Your task to perform on an android device: change the clock style Image 0: 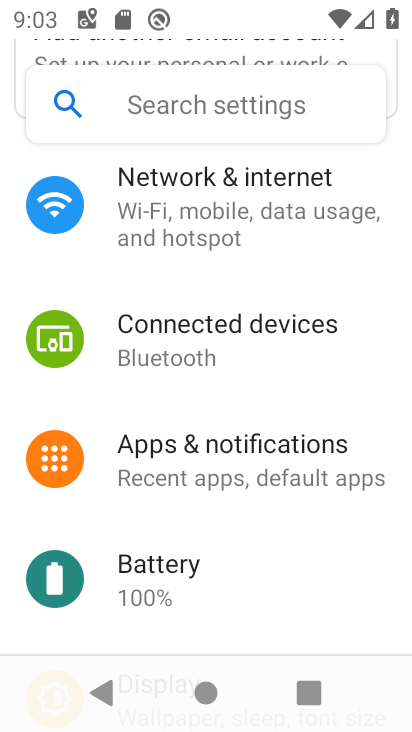
Step 0: press home button
Your task to perform on an android device: change the clock style Image 1: 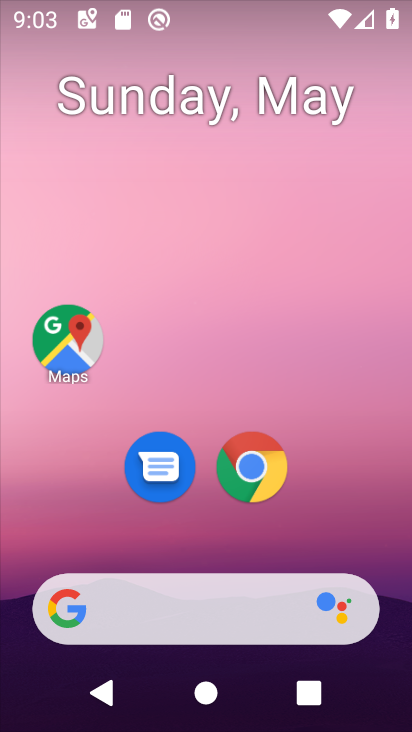
Step 1: drag from (366, 533) to (324, 172)
Your task to perform on an android device: change the clock style Image 2: 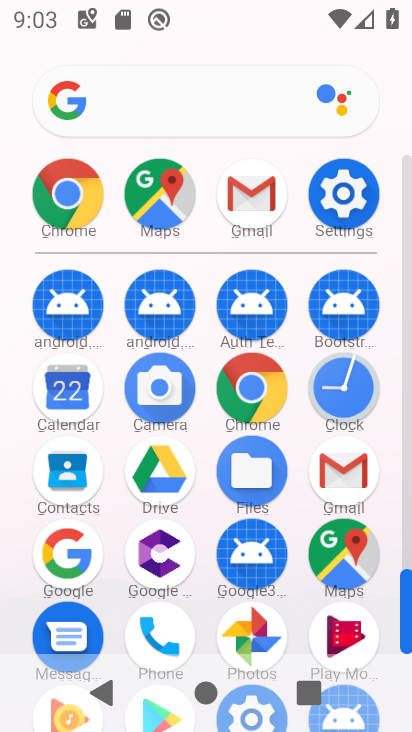
Step 2: click (336, 414)
Your task to perform on an android device: change the clock style Image 3: 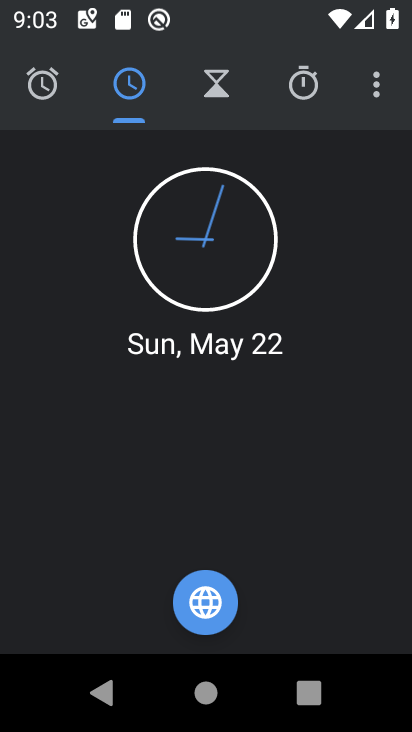
Step 3: click (391, 87)
Your task to perform on an android device: change the clock style Image 4: 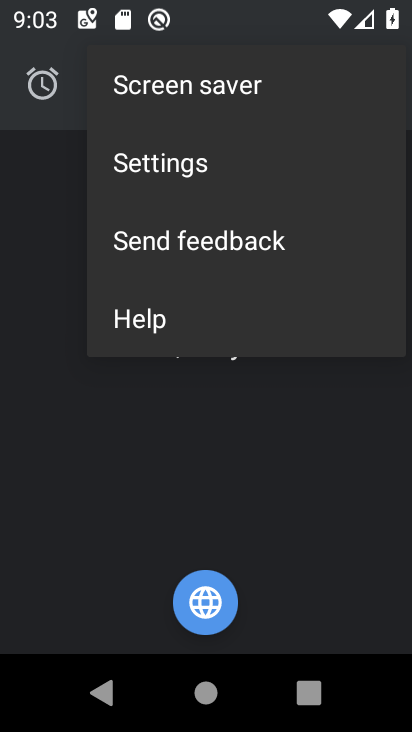
Step 4: click (205, 170)
Your task to perform on an android device: change the clock style Image 5: 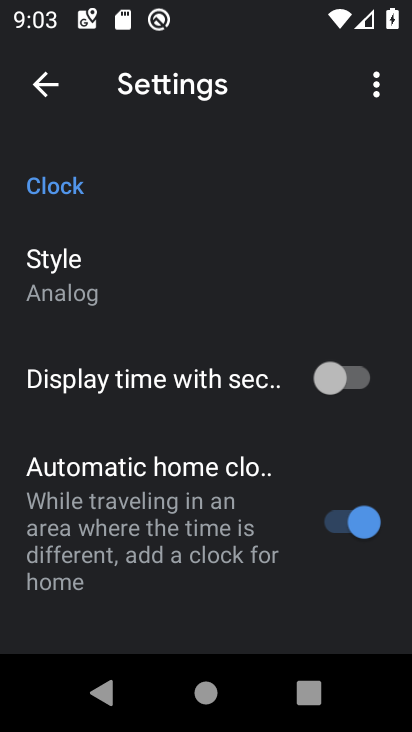
Step 5: click (110, 271)
Your task to perform on an android device: change the clock style Image 6: 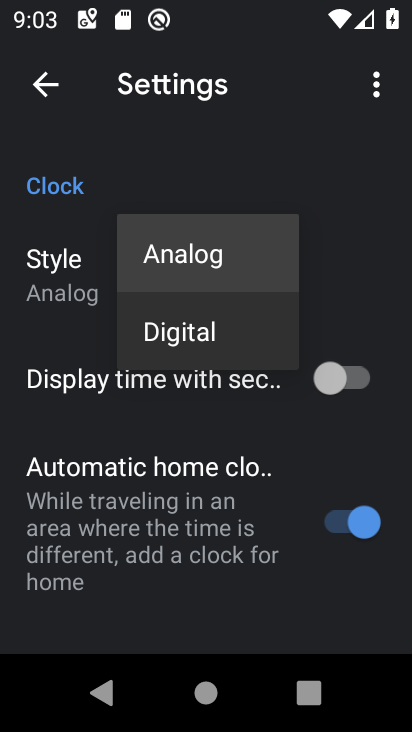
Step 6: click (175, 340)
Your task to perform on an android device: change the clock style Image 7: 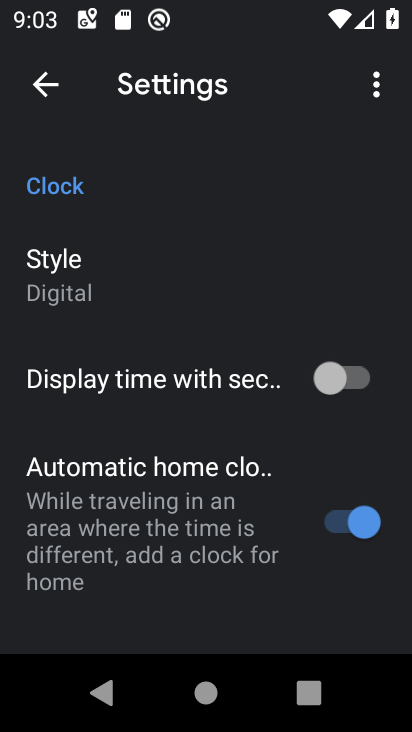
Step 7: task complete